Your task to perform on an android device: toggle show notifications on the lock screen Image 0: 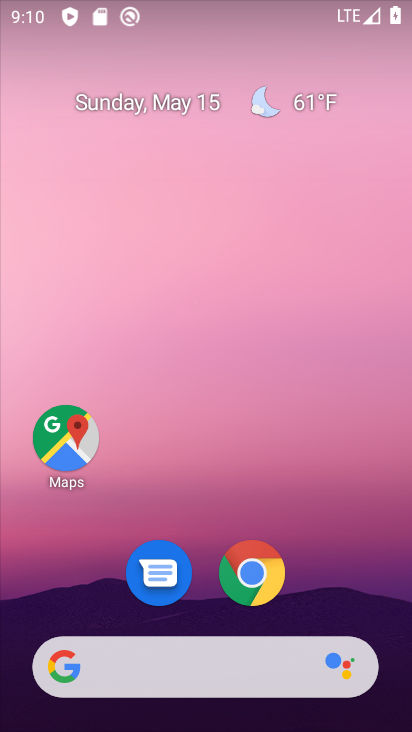
Step 0: drag from (41, 621) to (314, 223)
Your task to perform on an android device: toggle show notifications on the lock screen Image 1: 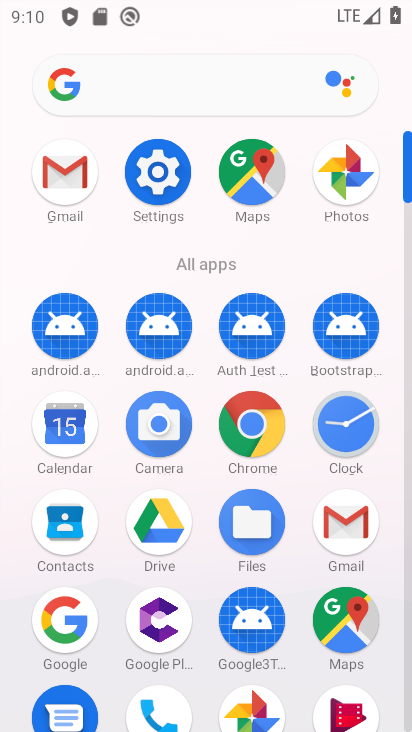
Step 1: click (147, 177)
Your task to perform on an android device: toggle show notifications on the lock screen Image 2: 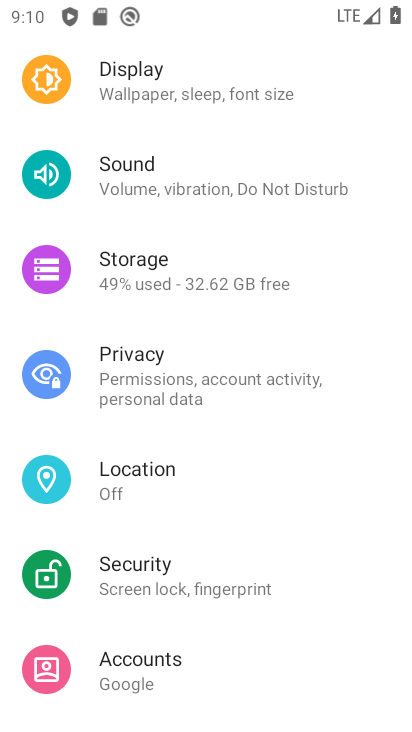
Step 2: drag from (176, 197) to (211, 602)
Your task to perform on an android device: toggle show notifications on the lock screen Image 3: 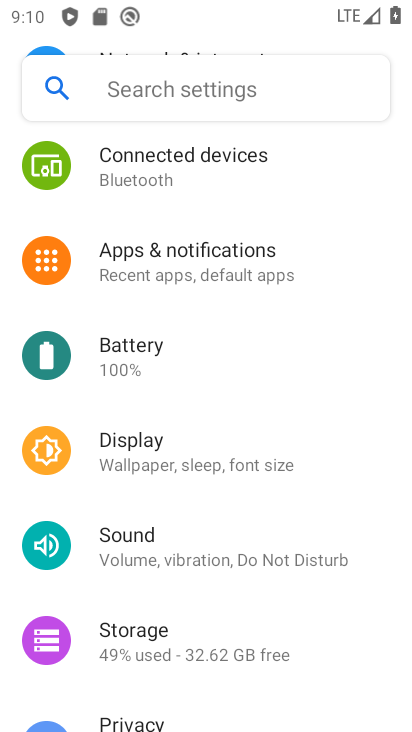
Step 3: click (224, 273)
Your task to perform on an android device: toggle show notifications on the lock screen Image 4: 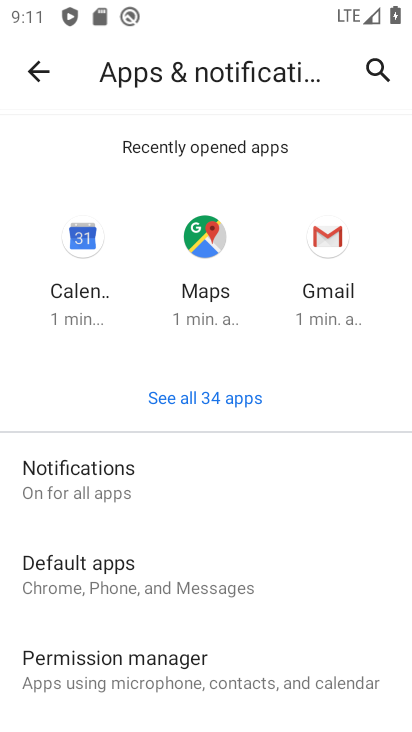
Step 4: click (101, 475)
Your task to perform on an android device: toggle show notifications on the lock screen Image 5: 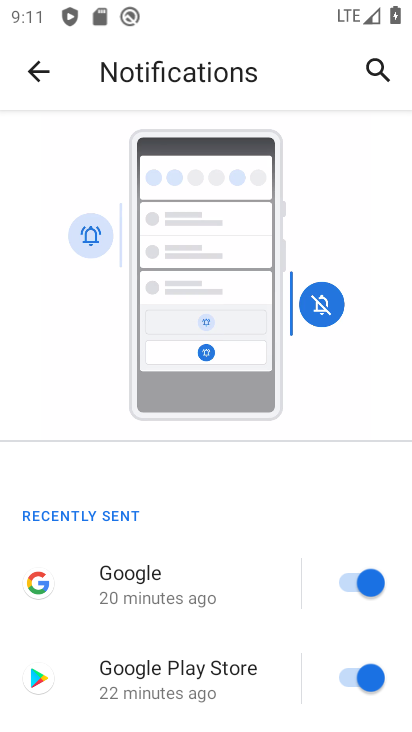
Step 5: click (38, 71)
Your task to perform on an android device: toggle show notifications on the lock screen Image 6: 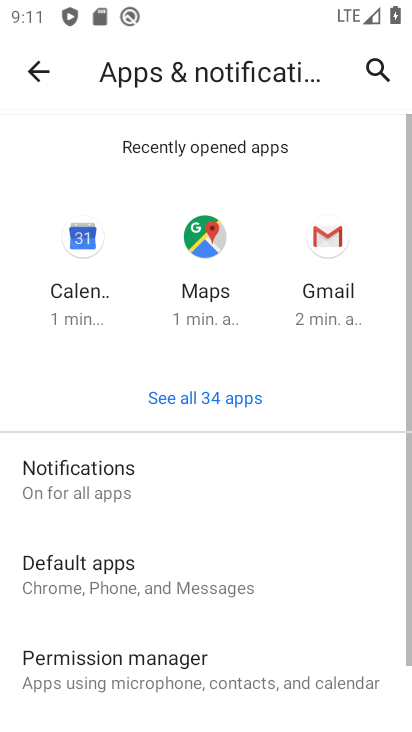
Step 6: click (77, 475)
Your task to perform on an android device: toggle show notifications on the lock screen Image 7: 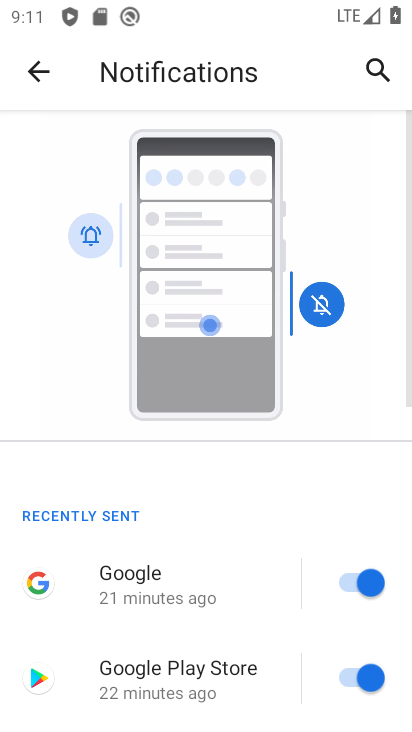
Step 7: drag from (0, 559) to (217, 155)
Your task to perform on an android device: toggle show notifications on the lock screen Image 8: 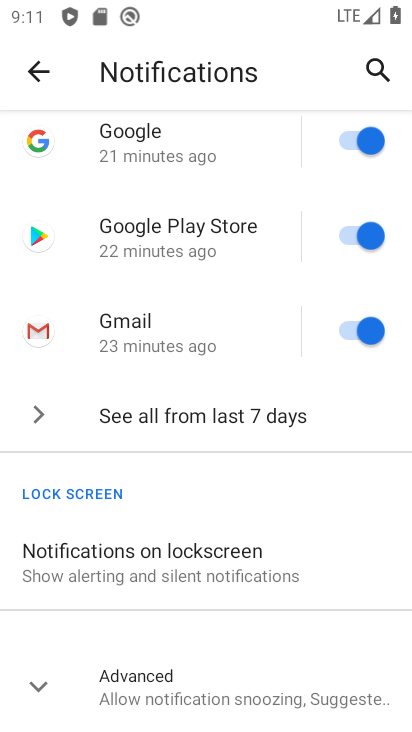
Step 8: click (140, 567)
Your task to perform on an android device: toggle show notifications on the lock screen Image 9: 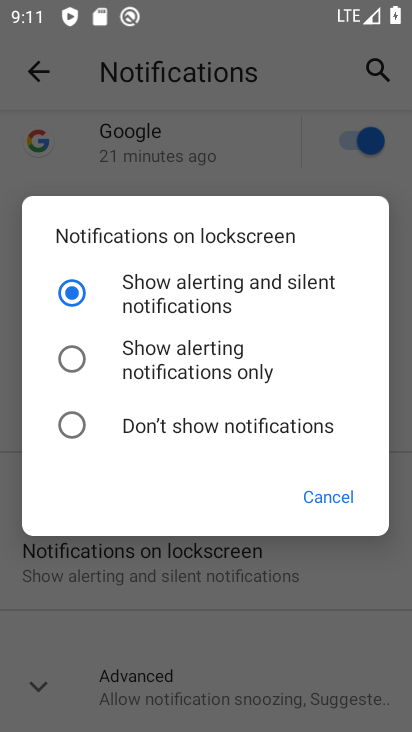
Step 9: click (85, 419)
Your task to perform on an android device: toggle show notifications on the lock screen Image 10: 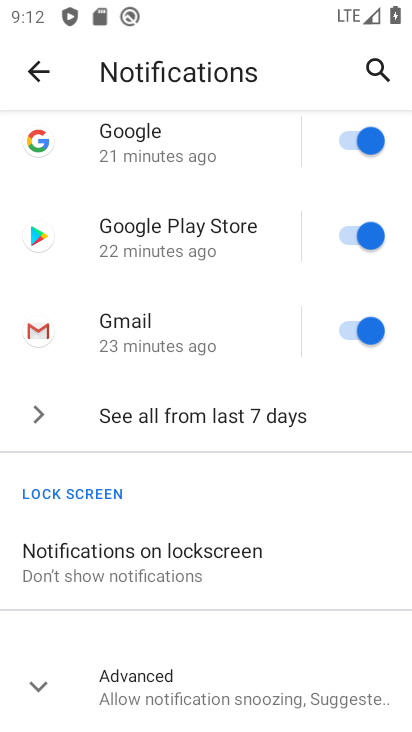
Step 10: click (241, 559)
Your task to perform on an android device: toggle show notifications on the lock screen Image 11: 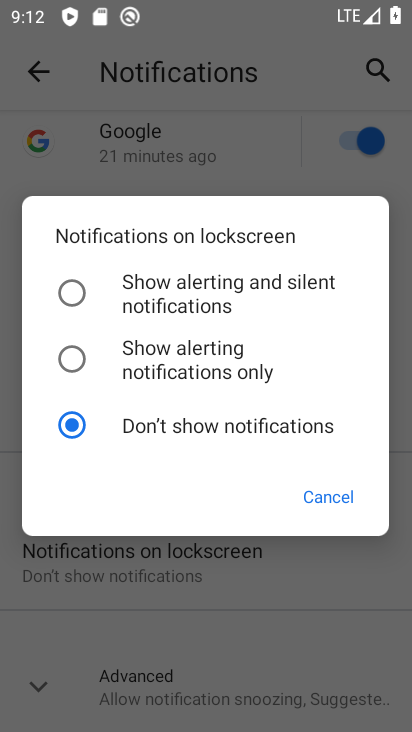
Step 11: task complete